Your task to perform on an android device: Check the weather Image 0: 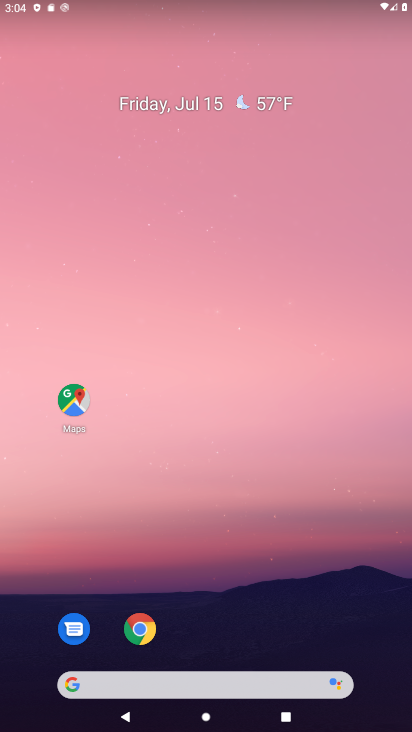
Step 0: click (407, 535)
Your task to perform on an android device: Check the weather Image 1: 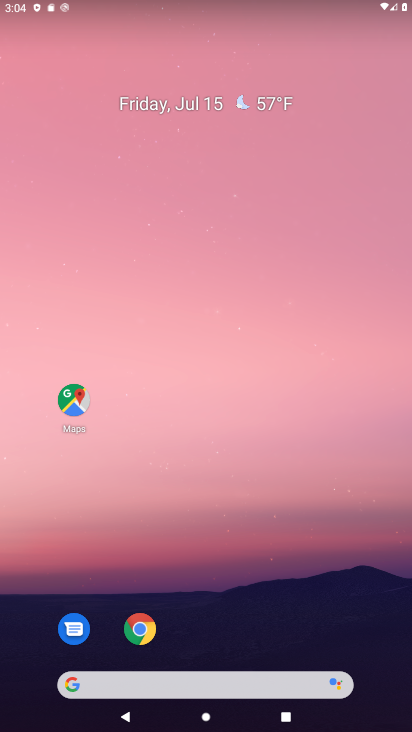
Step 1: drag from (231, 622) to (213, 71)
Your task to perform on an android device: Check the weather Image 2: 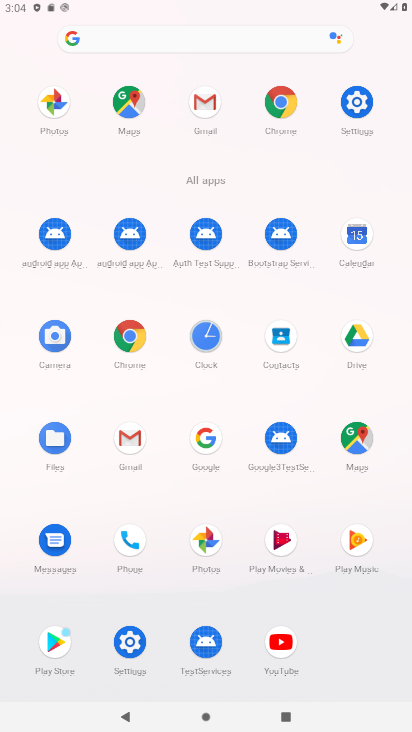
Step 2: click (270, 109)
Your task to perform on an android device: Check the weather Image 3: 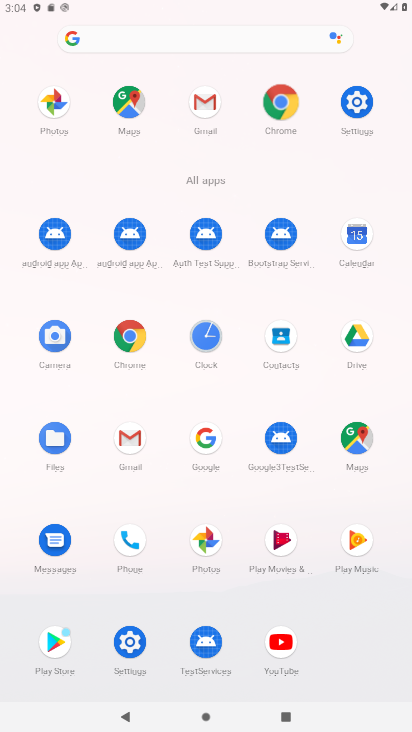
Step 3: click (257, 117)
Your task to perform on an android device: Check the weather Image 4: 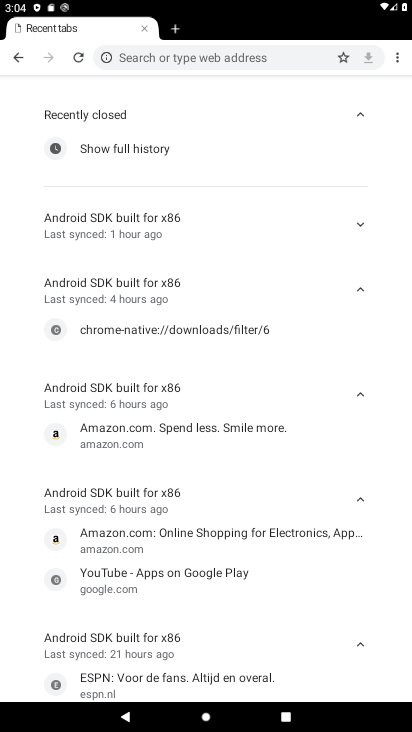
Step 4: drag from (385, 57) to (108, 250)
Your task to perform on an android device: Check the weather Image 5: 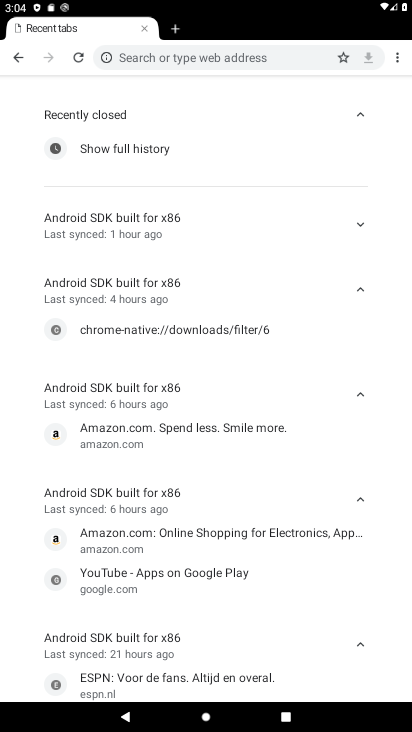
Step 5: click (135, 26)
Your task to perform on an android device: Check the weather Image 6: 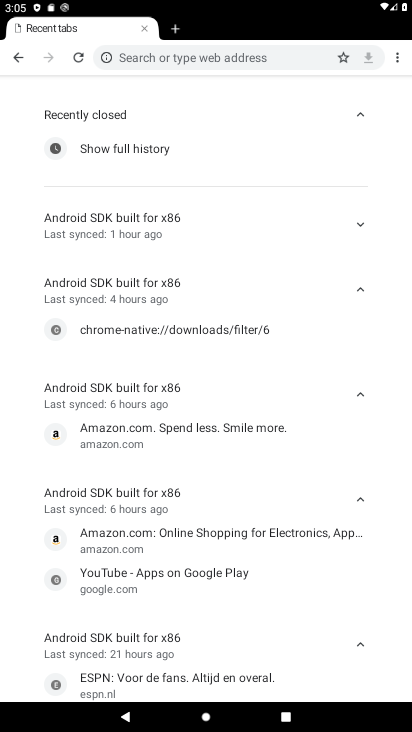
Step 6: click (178, 35)
Your task to perform on an android device: Check the weather Image 7: 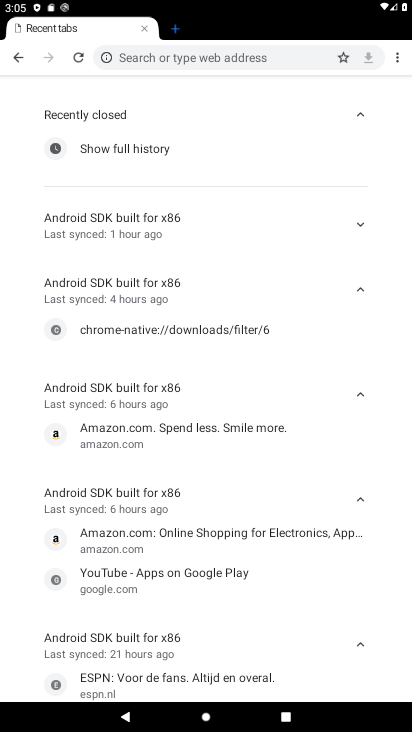
Step 7: click (167, 35)
Your task to perform on an android device: Check the weather Image 8: 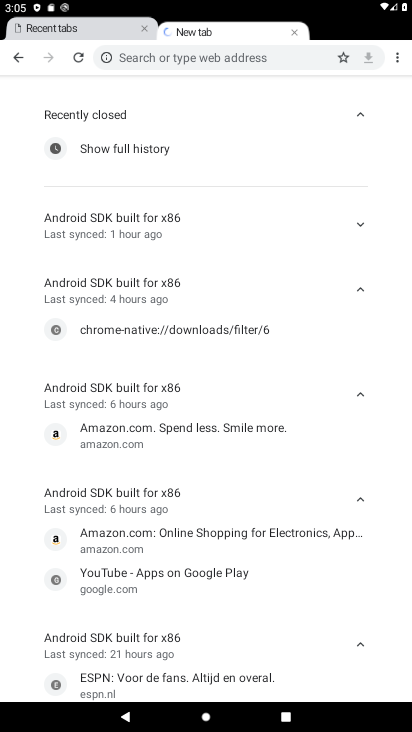
Step 8: click (166, 35)
Your task to perform on an android device: Check the weather Image 9: 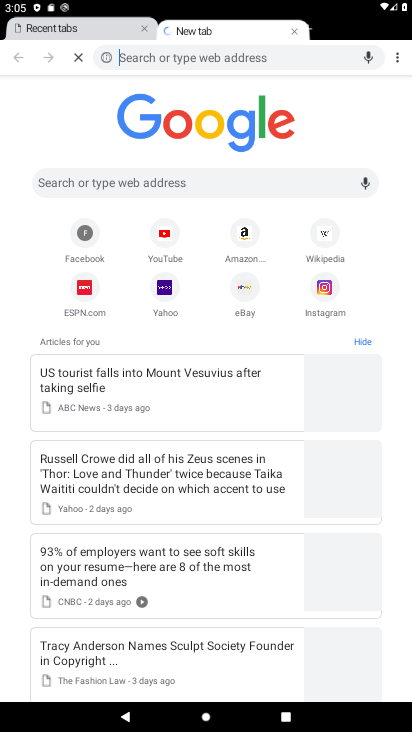
Step 9: click (166, 35)
Your task to perform on an android device: Check the weather Image 10: 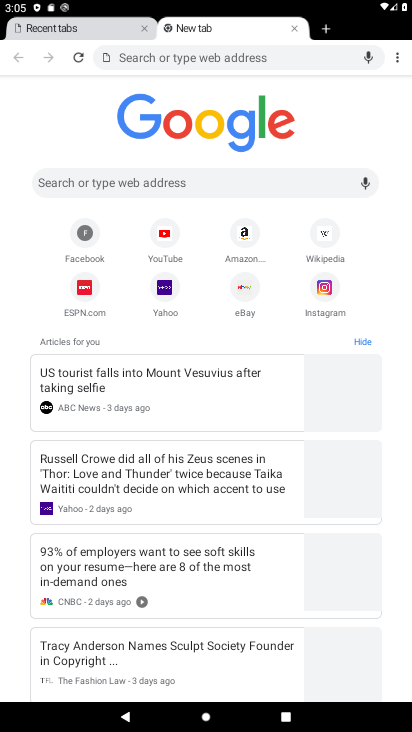
Step 10: click (162, 37)
Your task to perform on an android device: Check the weather Image 11: 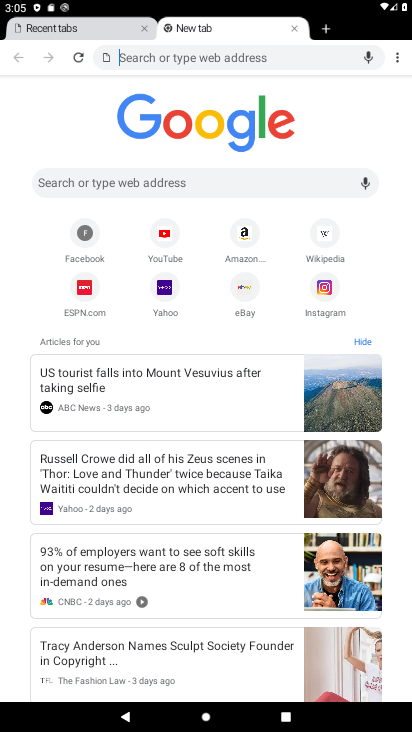
Step 11: type "weatrher"
Your task to perform on an android device: Check the weather Image 12: 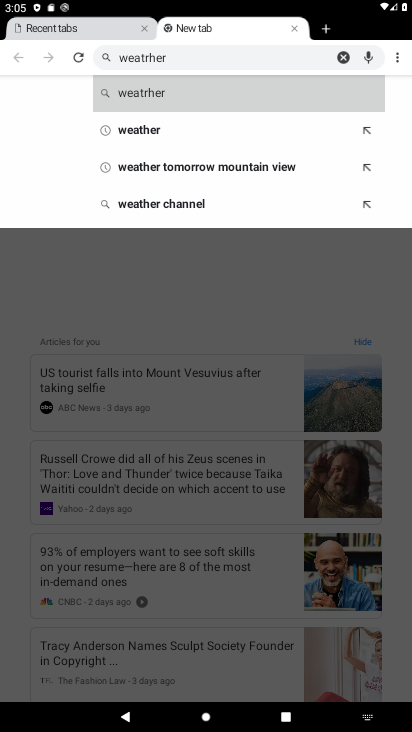
Step 12: click (180, 120)
Your task to perform on an android device: Check the weather Image 13: 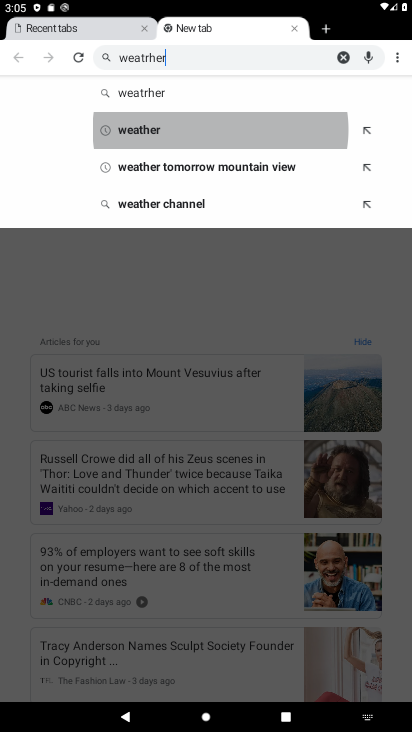
Step 13: click (176, 111)
Your task to perform on an android device: Check the weather Image 14: 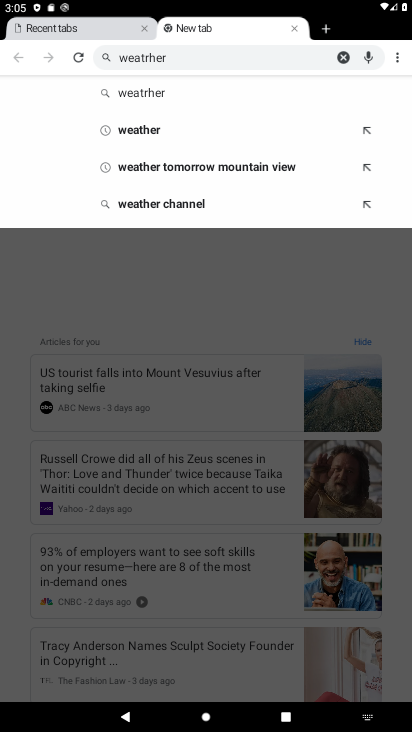
Step 14: click (175, 112)
Your task to perform on an android device: Check the weather Image 15: 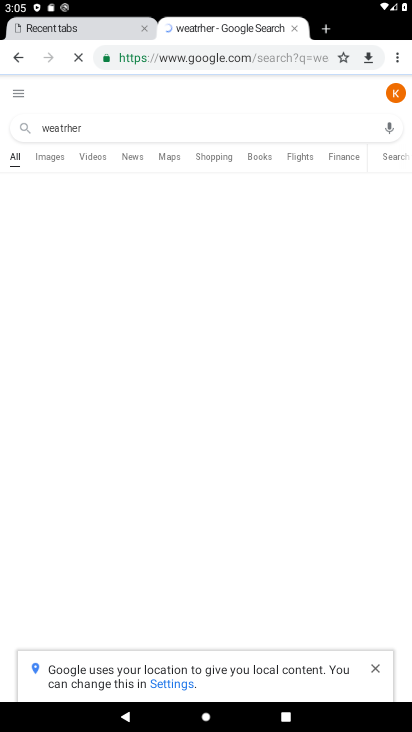
Step 15: task complete